Your task to perform on an android device: set the stopwatch Image 0: 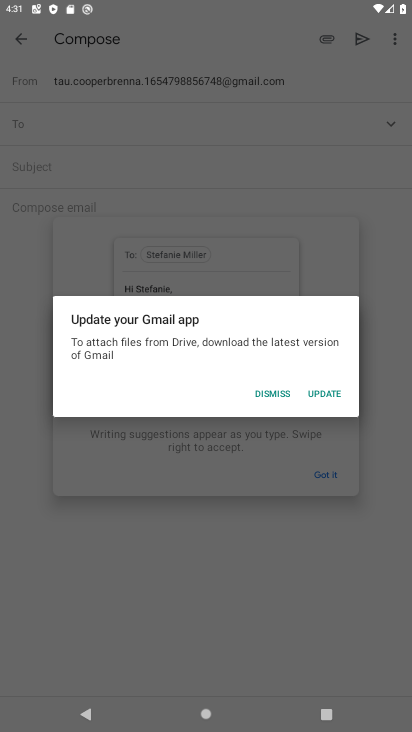
Step 0: click (270, 384)
Your task to perform on an android device: set the stopwatch Image 1: 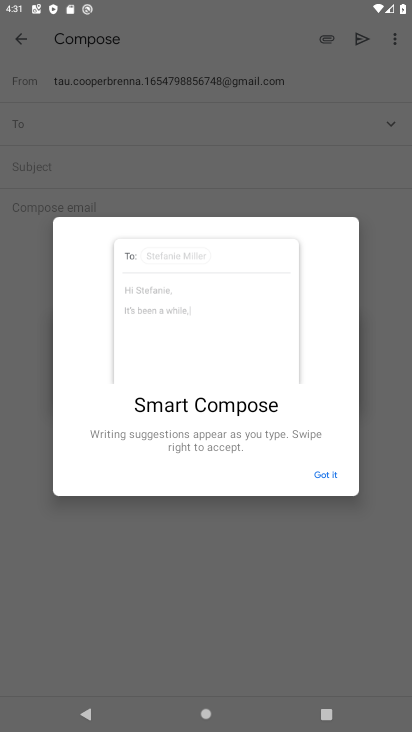
Step 1: click (330, 462)
Your task to perform on an android device: set the stopwatch Image 2: 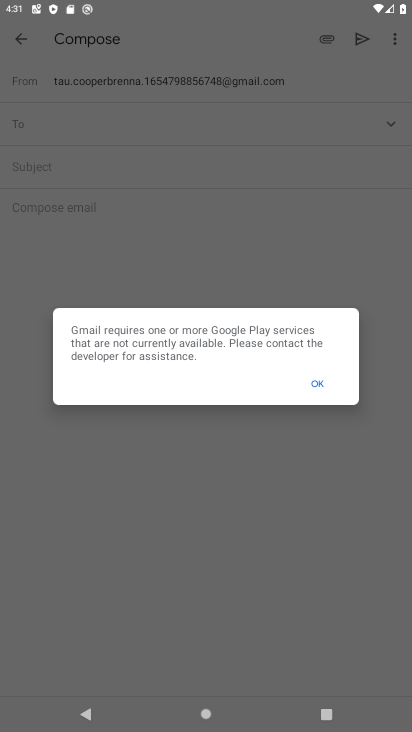
Step 2: click (322, 378)
Your task to perform on an android device: set the stopwatch Image 3: 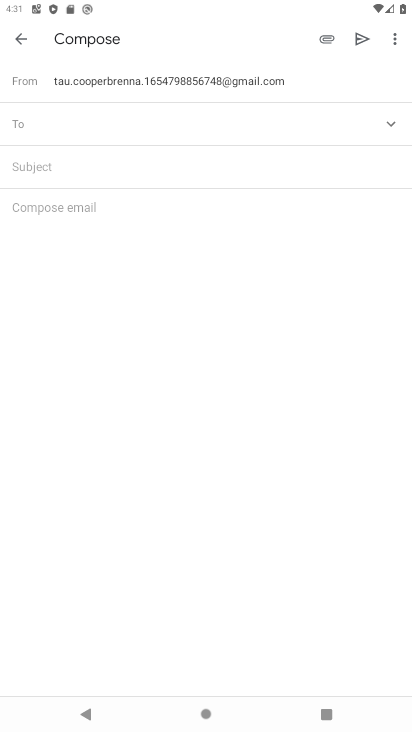
Step 3: click (22, 39)
Your task to perform on an android device: set the stopwatch Image 4: 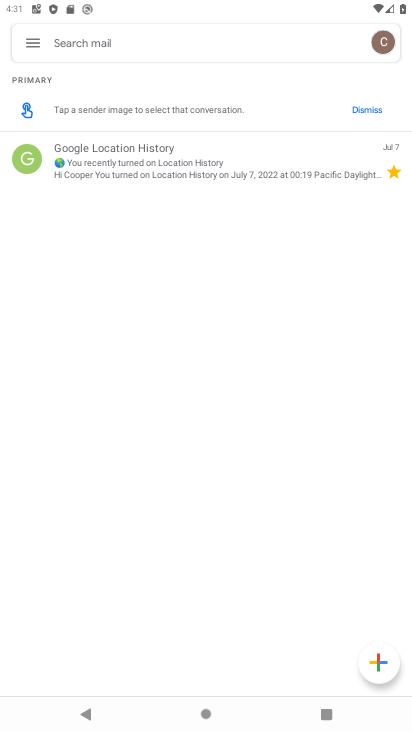
Step 4: press back button
Your task to perform on an android device: set the stopwatch Image 5: 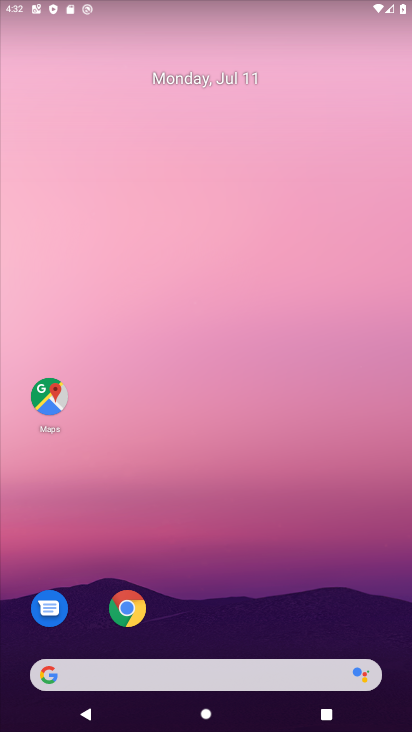
Step 5: drag from (269, 628) to (211, 232)
Your task to perform on an android device: set the stopwatch Image 6: 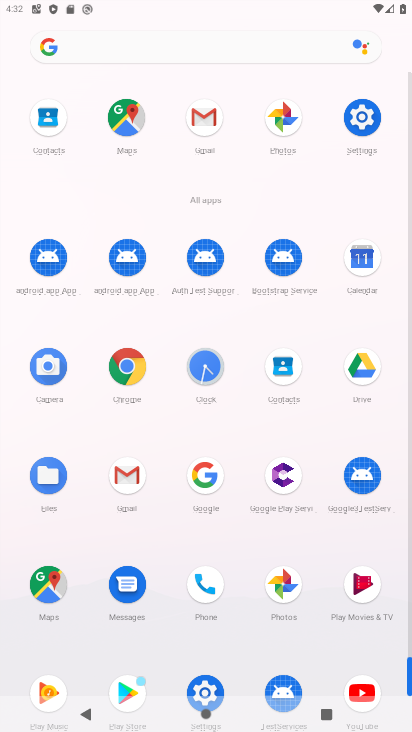
Step 6: click (190, 369)
Your task to perform on an android device: set the stopwatch Image 7: 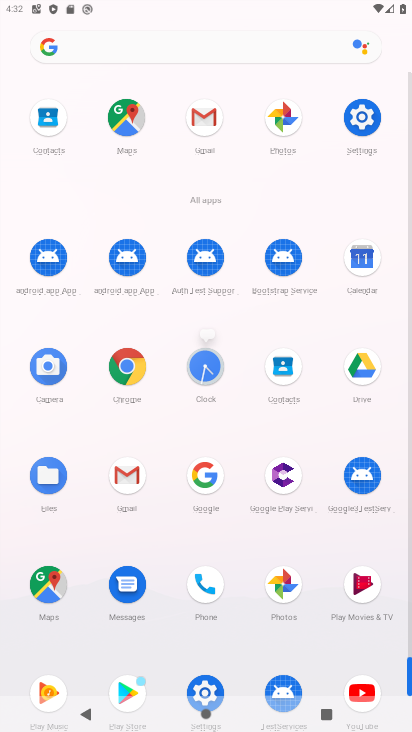
Step 7: click (204, 374)
Your task to perform on an android device: set the stopwatch Image 8: 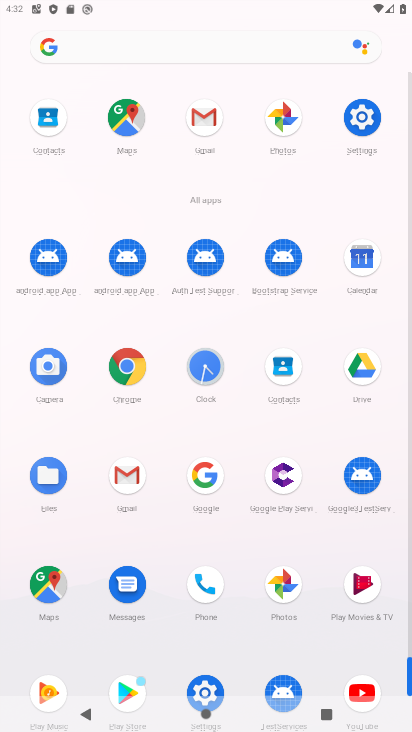
Step 8: click (204, 374)
Your task to perform on an android device: set the stopwatch Image 9: 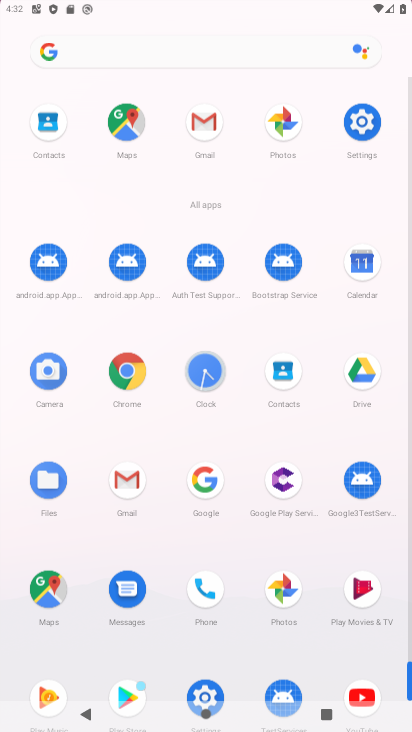
Step 9: click (204, 374)
Your task to perform on an android device: set the stopwatch Image 10: 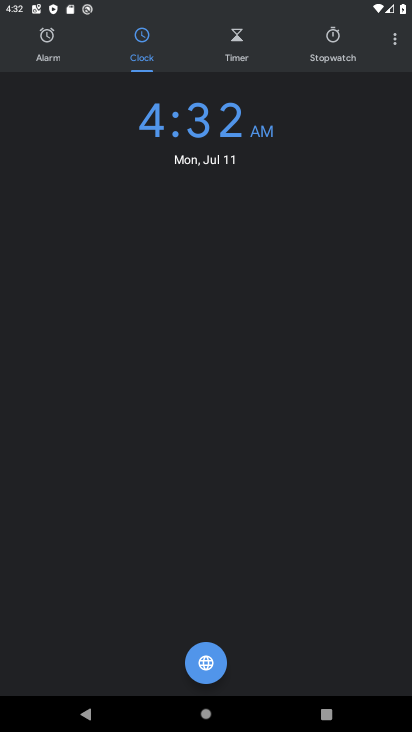
Step 10: click (342, 36)
Your task to perform on an android device: set the stopwatch Image 11: 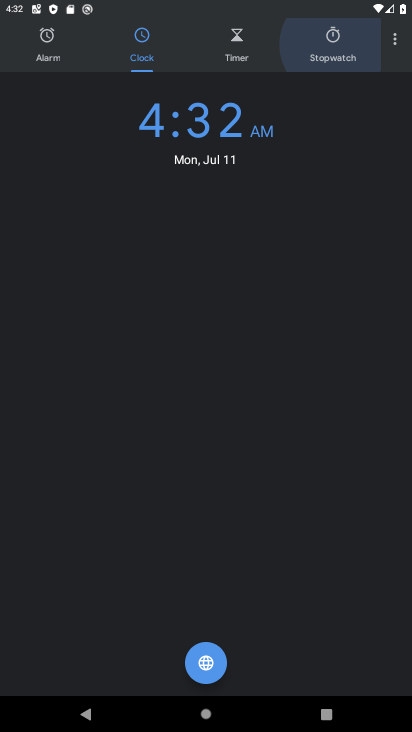
Step 11: click (342, 36)
Your task to perform on an android device: set the stopwatch Image 12: 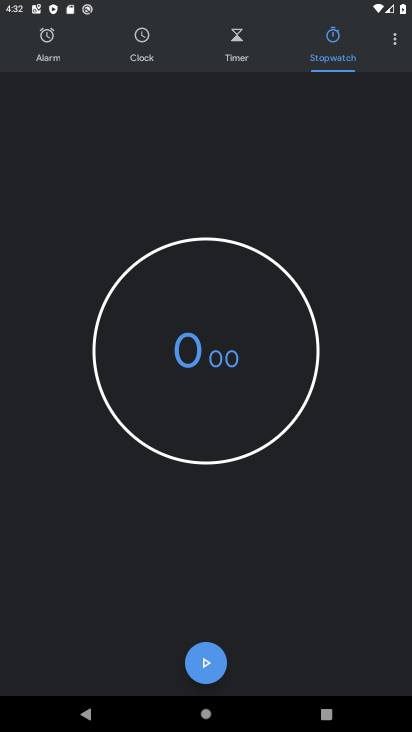
Step 12: click (222, 359)
Your task to perform on an android device: set the stopwatch Image 13: 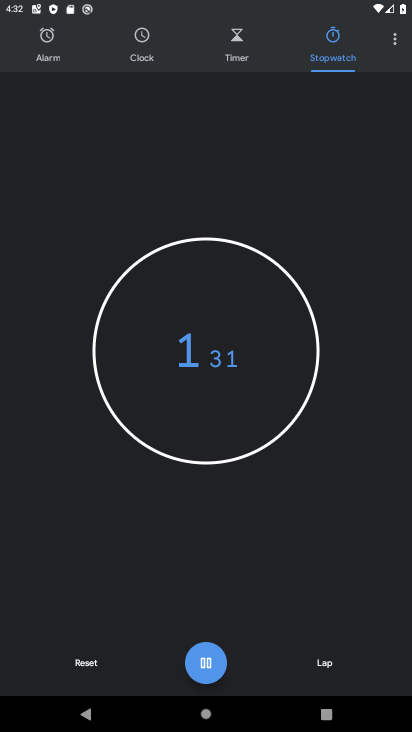
Step 13: click (201, 653)
Your task to perform on an android device: set the stopwatch Image 14: 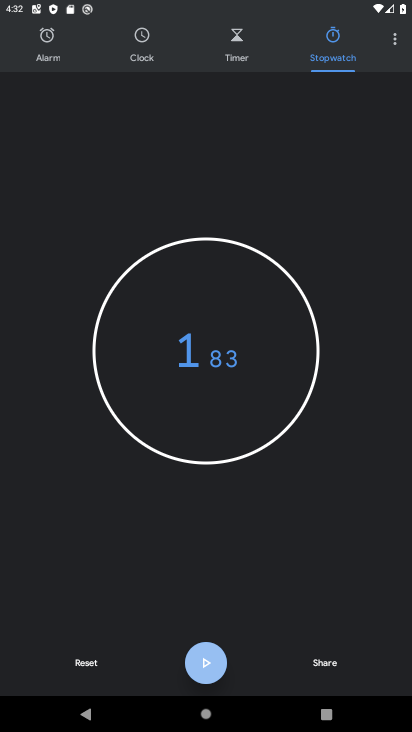
Step 14: click (201, 654)
Your task to perform on an android device: set the stopwatch Image 15: 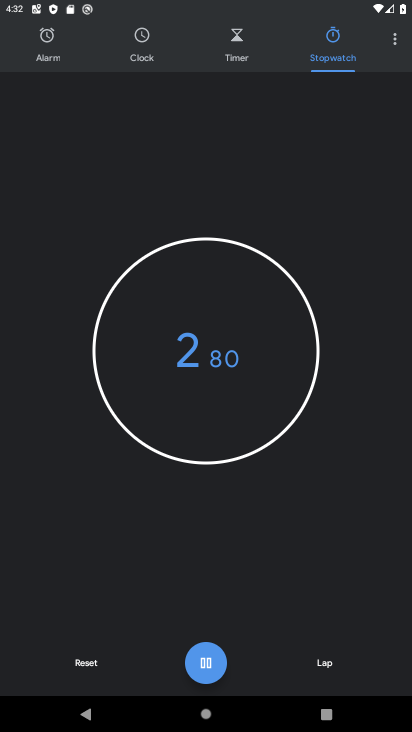
Step 15: click (205, 656)
Your task to perform on an android device: set the stopwatch Image 16: 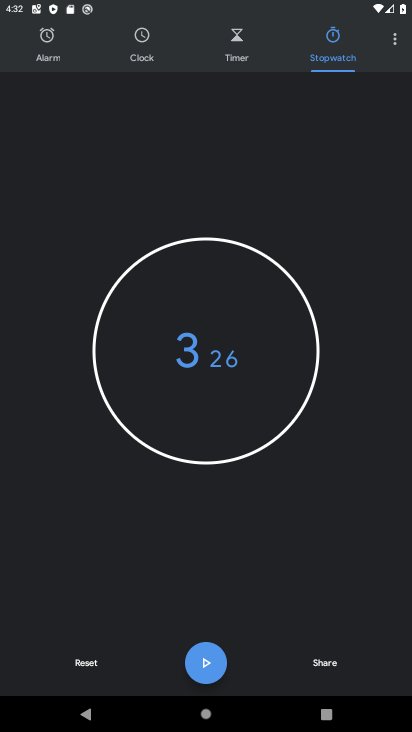
Step 16: task complete